Your task to perform on an android device: change the clock style Image 0: 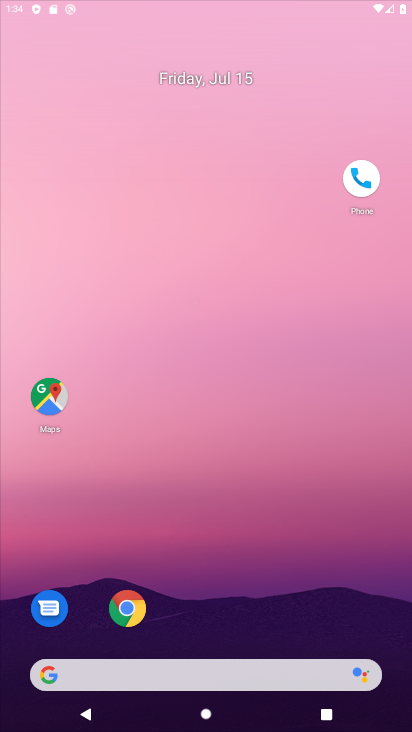
Step 0: drag from (175, 530) to (175, 238)
Your task to perform on an android device: change the clock style Image 1: 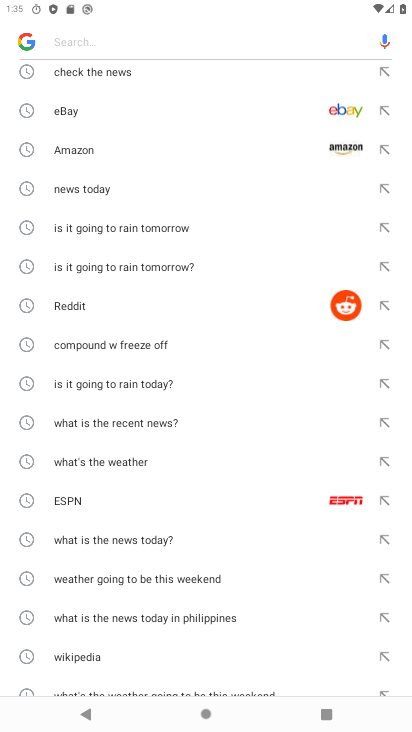
Step 1: press home button
Your task to perform on an android device: change the clock style Image 2: 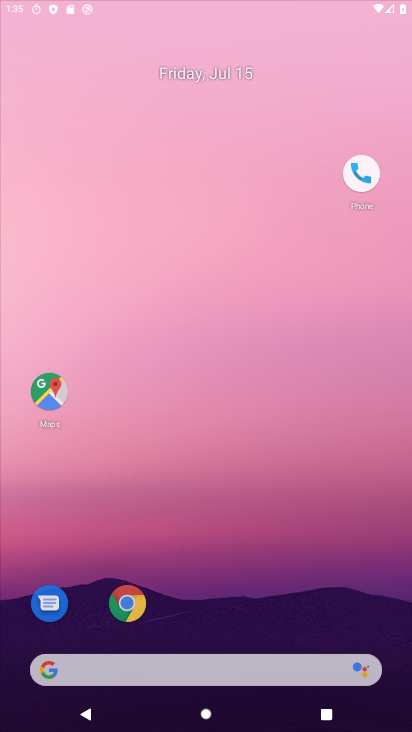
Step 2: drag from (155, 586) to (345, 66)
Your task to perform on an android device: change the clock style Image 3: 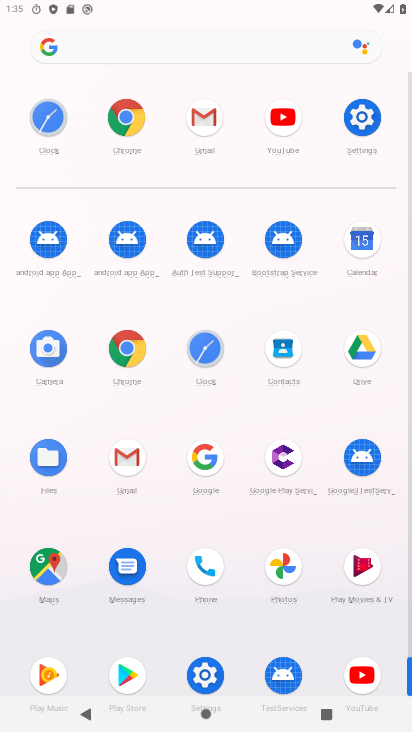
Step 3: click (200, 352)
Your task to perform on an android device: change the clock style Image 4: 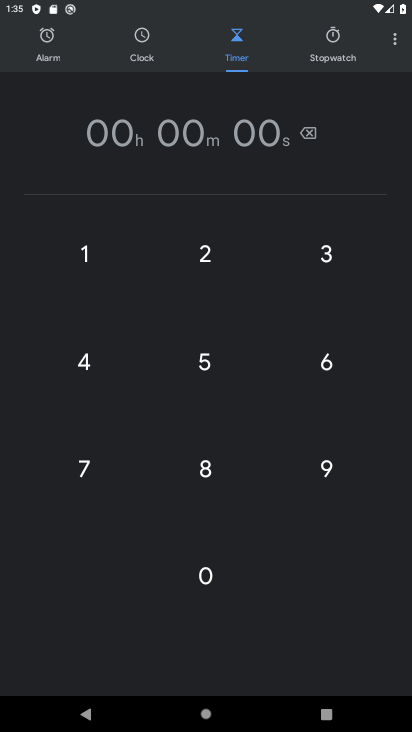
Step 4: click (390, 40)
Your task to perform on an android device: change the clock style Image 5: 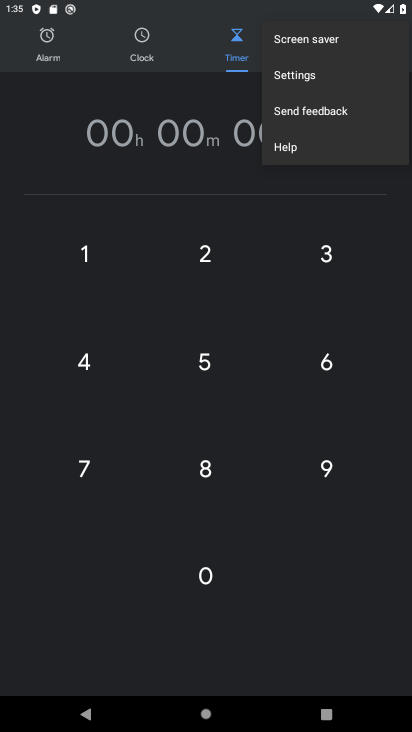
Step 5: click (295, 71)
Your task to perform on an android device: change the clock style Image 6: 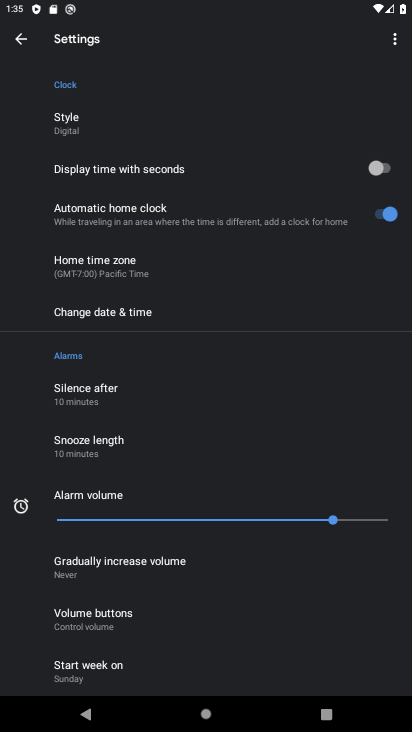
Step 6: click (104, 138)
Your task to perform on an android device: change the clock style Image 7: 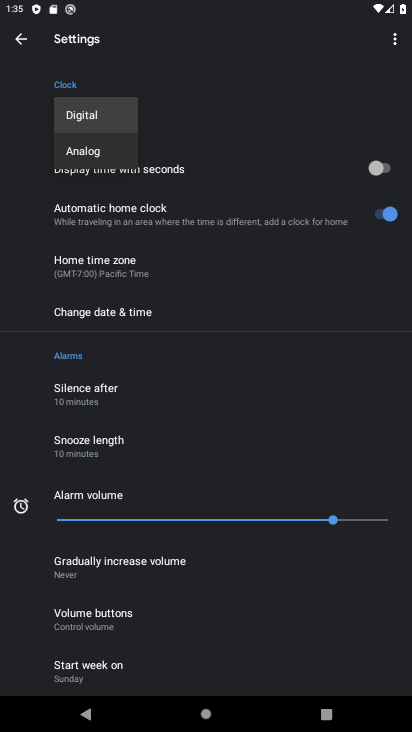
Step 7: click (107, 149)
Your task to perform on an android device: change the clock style Image 8: 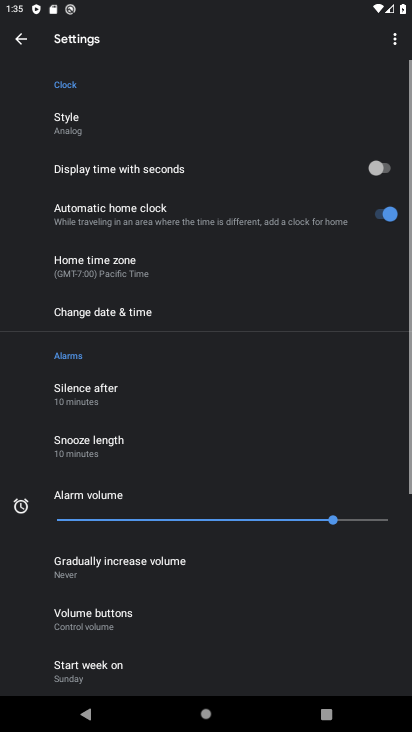
Step 8: task complete